Your task to perform on an android device: turn on bluetooth scan Image 0: 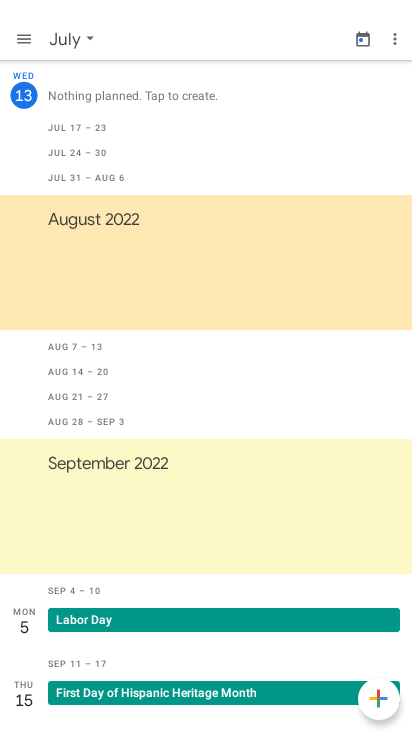
Step 0: press home button
Your task to perform on an android device: turn on bluetooth scan Image 1: 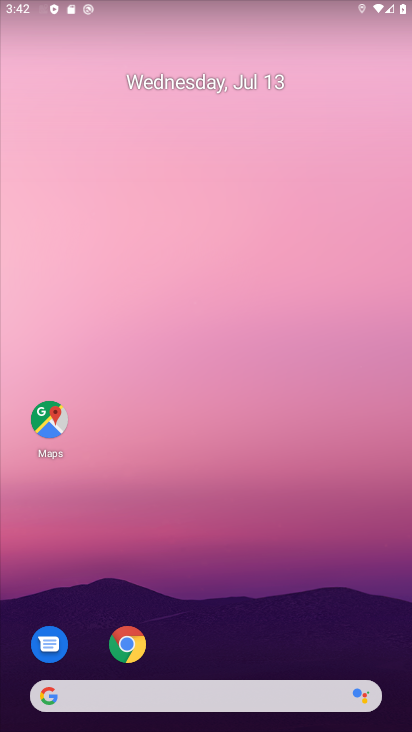
Step 1: drag from (257, 651) to (194, 93)
Your task to perform on an android device: turn on bluetooth scan Image 2: 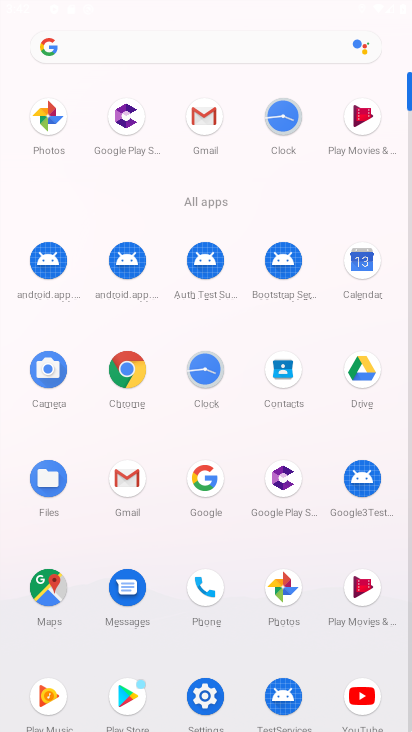
Step 2: click (200, 684)
Your task to perform on an android device: turn on bluetooth scan Image 3: 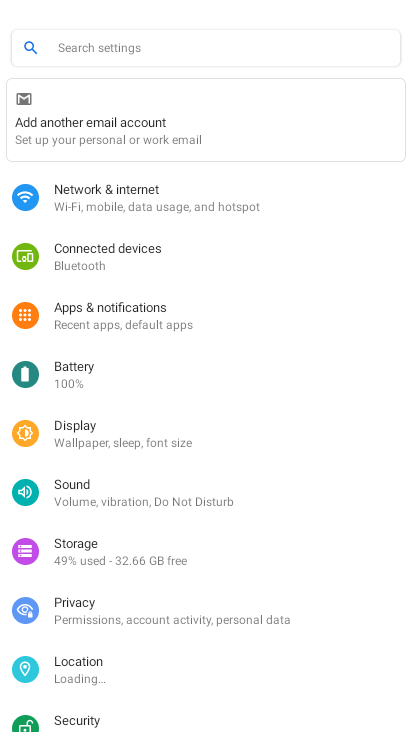
Step 3: click (190, 669)
Your task to perform on an android device: turn on bluetooth scan Image 4: 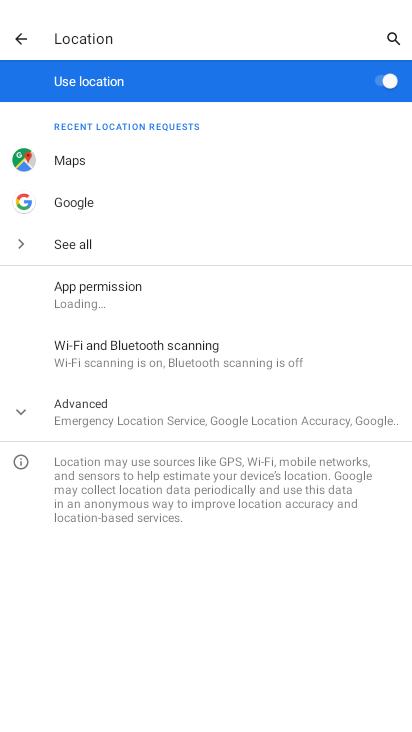
Step 4: click (239, 361)
Your task to perform on an android device: turn on bluetooth scan Image 5: 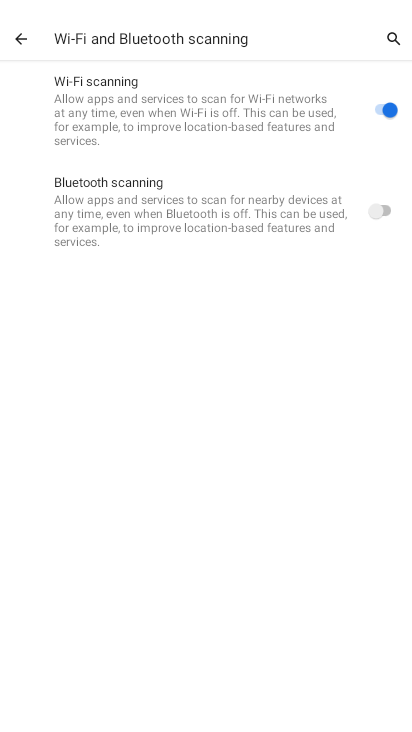
Step 5: click (375, 224)
Your task to perform on an android device: turn on bluetooth scan Image 6: 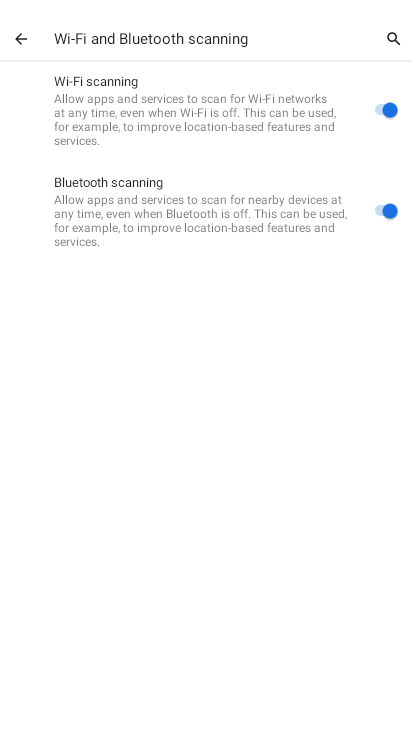
Step 6: task complete